Your task to perform on an android device: Open Chrome and go to settings Image 0: 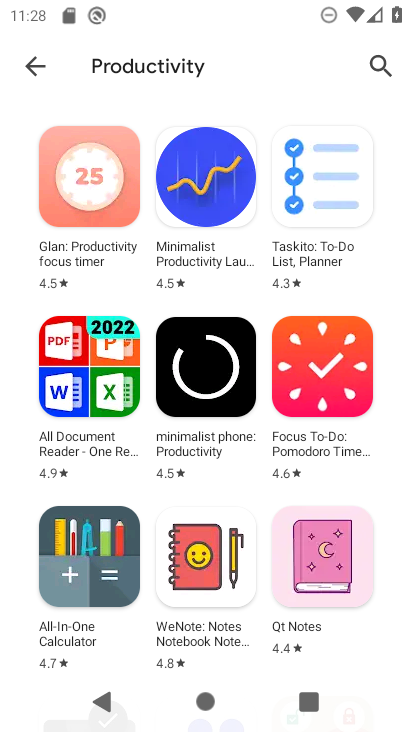
Step 0: press home button
Your task to perform on an android device: Open Chrome and go to settings Image 1: 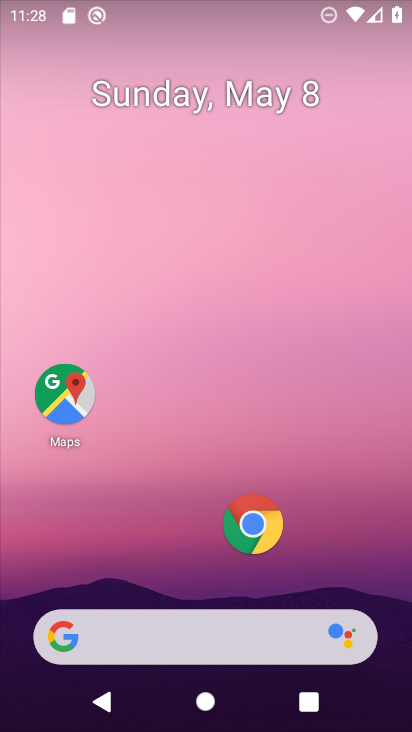
Step 1: drag from (154, 558) to (153, 47)
Your task to perform on an android device: Open Chrome and go to settings Image 2: 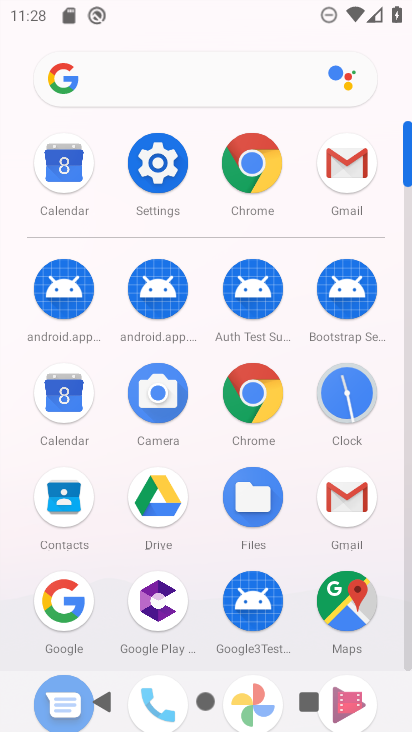
Step 2: click (248, 160)
Your task to perform on an android device: Open Chrome and go to settings Image 3: 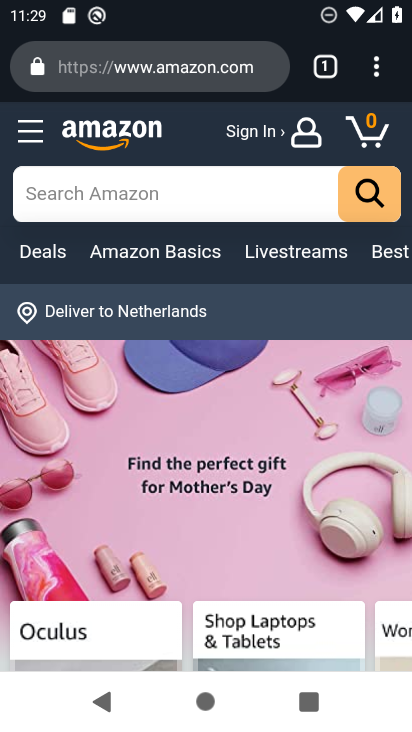
Step 3: click (378, 65)
Your task to perform on an android device: Open Chrome and go to settings Image 4: 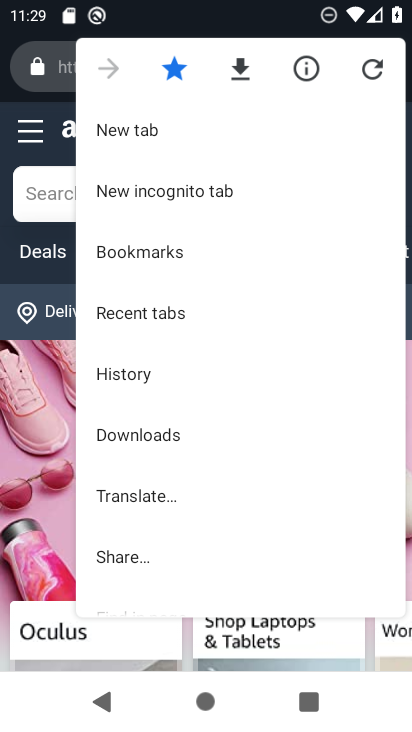
Step 4: drag from (250, 499) to (278, 50)
Your task to perform on an android device: Open Chrome and go to settings Image 5: 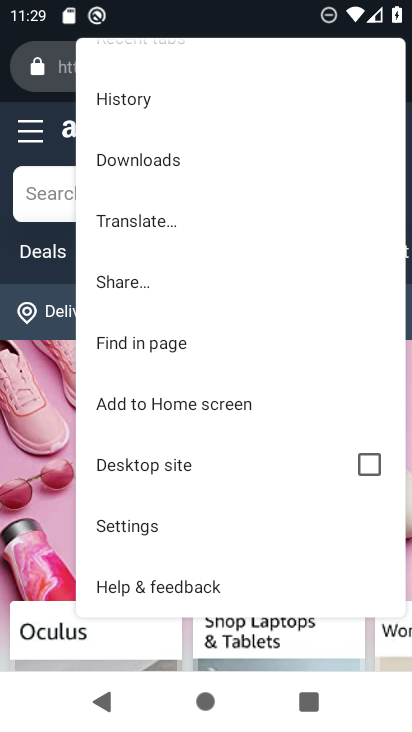
Step 5: click (187, 521)
Your task to perform on an android device: Open Chrome and go to settings Image 6: 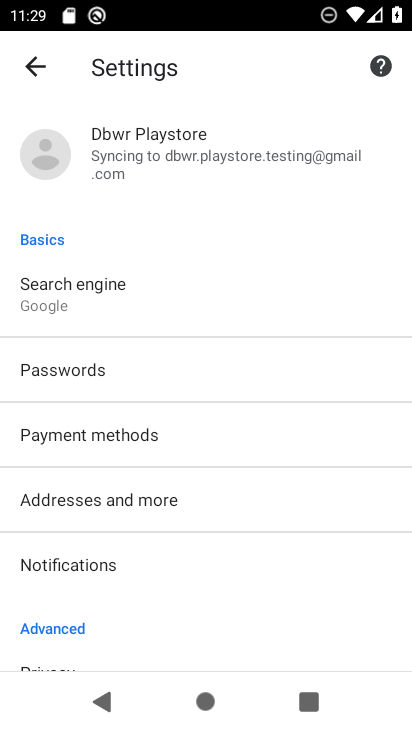
Step 6: task complete